Your task to perform on an android device: check the backup settings in the google photos Image 0: 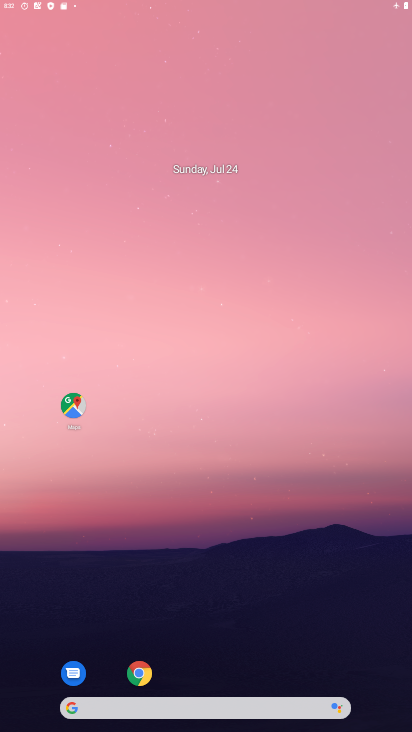
Step 0: click (165, 110)
Your task to perform on an android device: check the backup settings in the google photos Image 1: 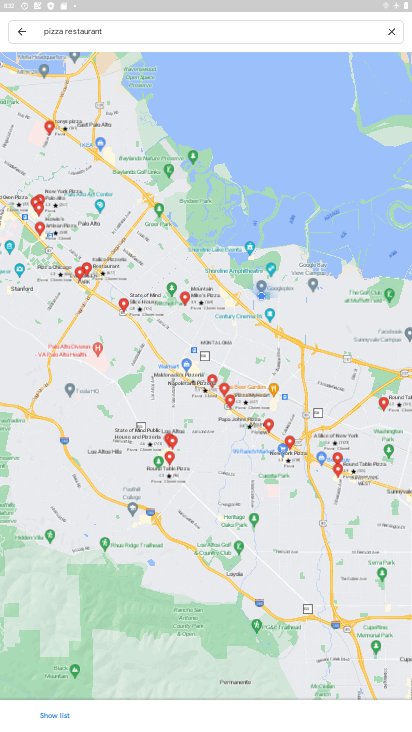
Step 1: press home button
Your task to perform on an android device: check the backup settings in the google photos Image 2: 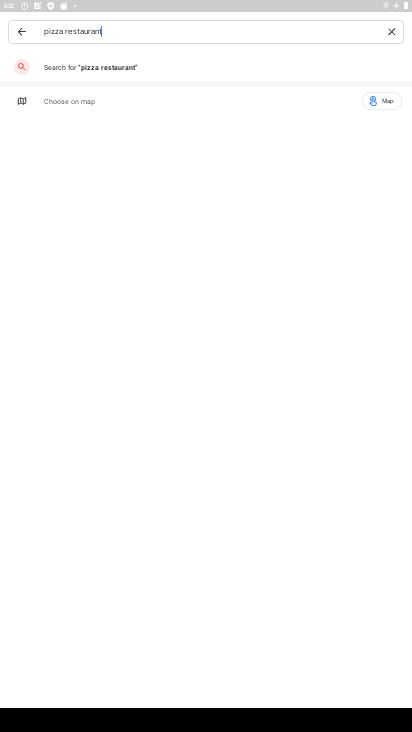
Step 2: drag from (203, 502) to (253, 51)
Your task to perform on an android device: check the backup settings in the google photos Image 3: 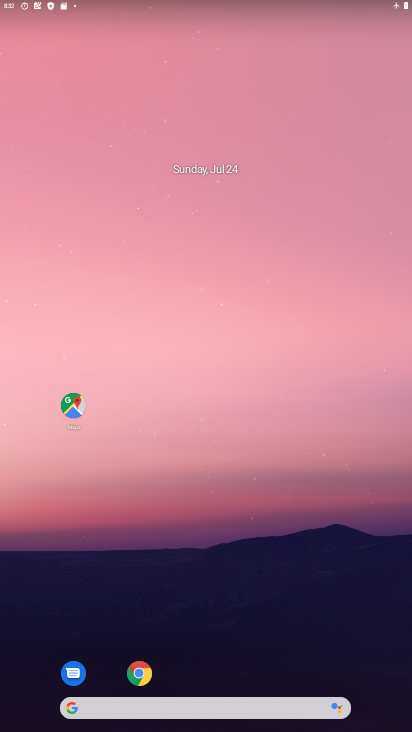
Step 3: drag from (185, 650) to (239, 37)
Your task to perform on an android device: check the backup settings in the google photos Image 4: 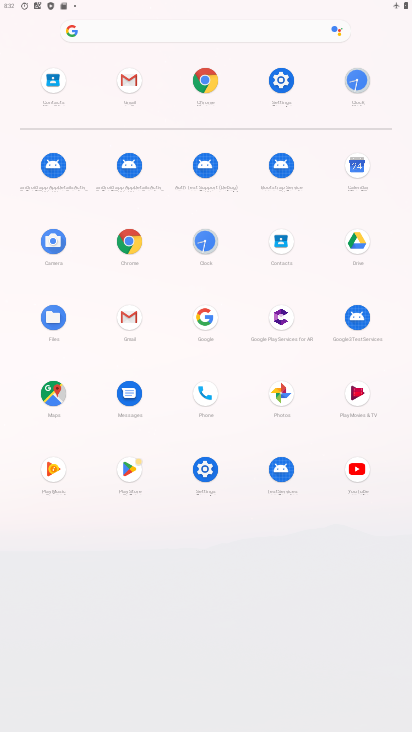
Step 4: click (276, 397)
Your task to perform on an android device: check the backup settings in the google photos Image 5: 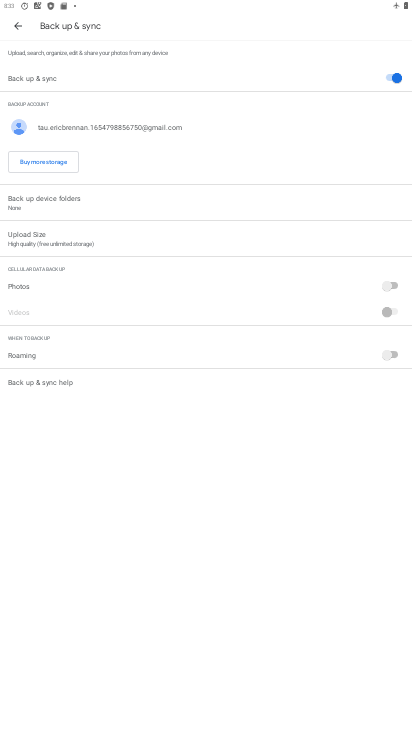
Step 5: drag from (121, 601) to (215, 259)
Your task to perform on an android device: check the backup settings in the google photos Image 6: 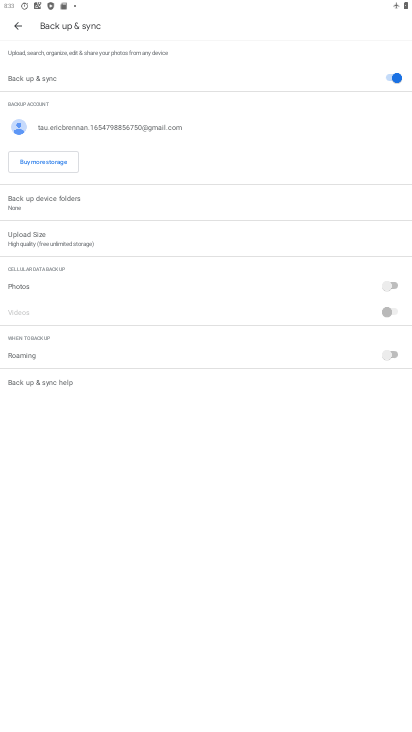
Step 6: drag from (151, 330) to (205, 105)
Your task to perform on an android device: check the backup settings in the google photos Image 7: 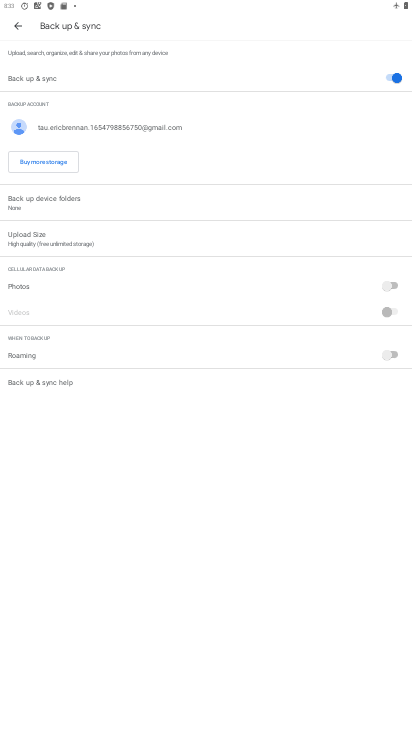
Step 7: click (88, 203)
Your task to perform on an android device: check the backup settings in the google photos Image 8: 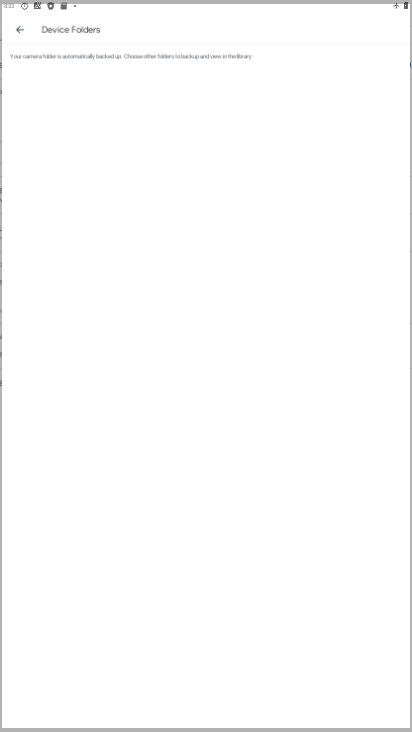
Step 8: drag from (154, 426) to (223, 115)
Your task to perform on an android device: check the backup settings in the google photos Image 9: 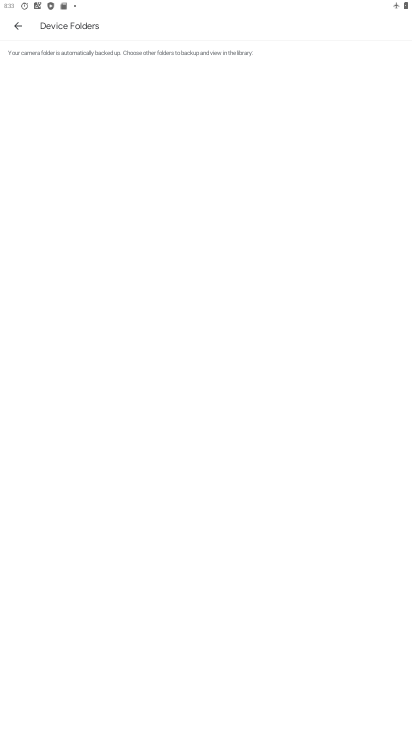
Step 9: drag from (185, 347) to (188, 130)
Your task to perform on an android device: check the backup settings in the google photos Image 10: 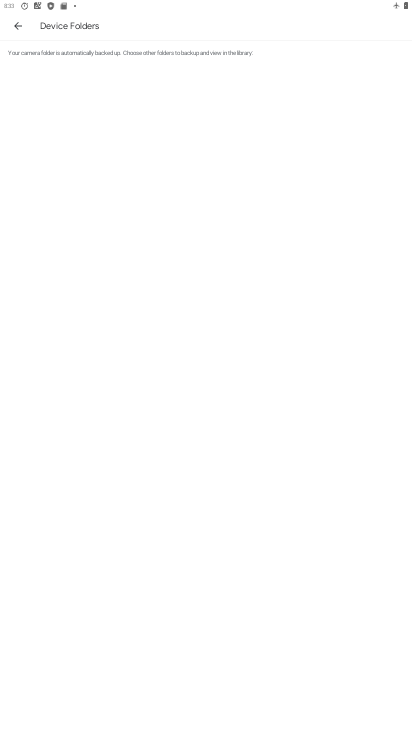
Step 10: click (16, 18)
Your task to perform on an android device: check the backup settings in the google photos Image 11: 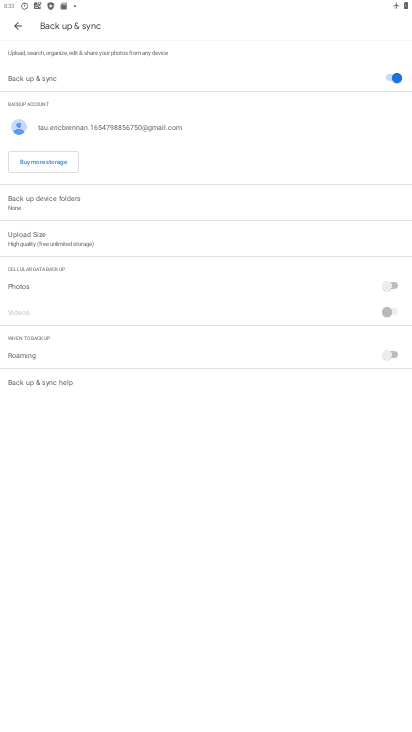
Step 11: task complete